Your task to perform on an android device: Show me the alarms in the clock app Image 0: 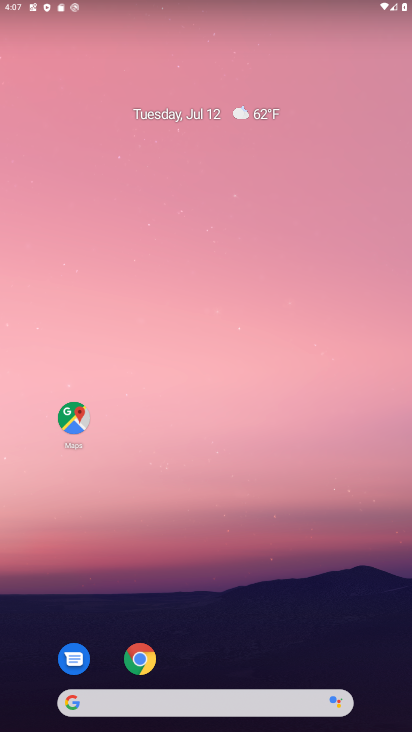
Step 0: drag from (223, 667) to (213, 126)
Your task to perform on an android device: Show me the alarms in the clock app Image 1: 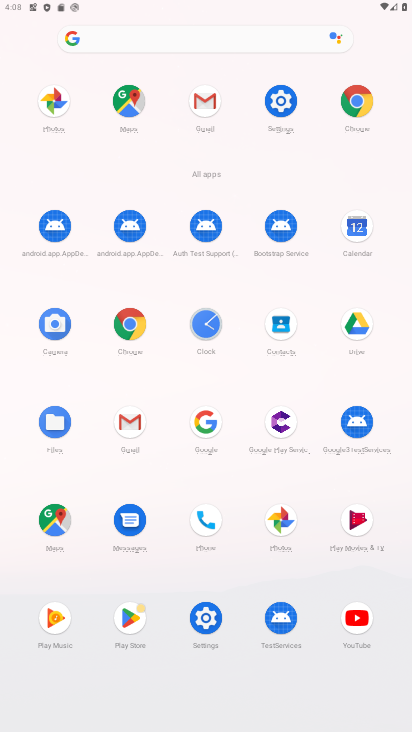
Step 1: click (202, 326)
Your task to perform on an android device: Show me the alarms in the clock app Image 2: 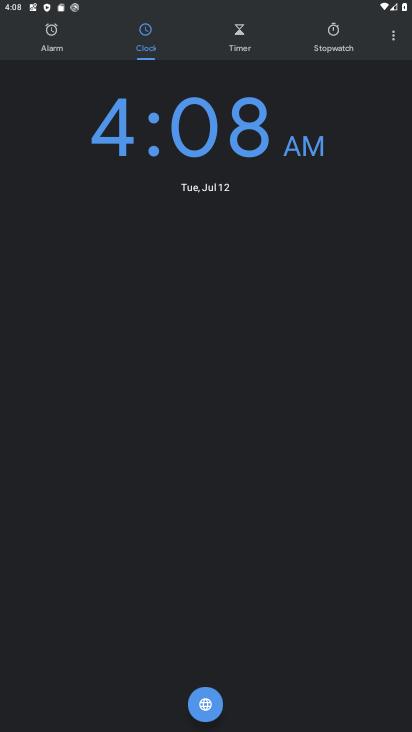
Step 2: click (386, 39)
Your task to perform on an android device: Show me the alarms in the clock app Image 3: 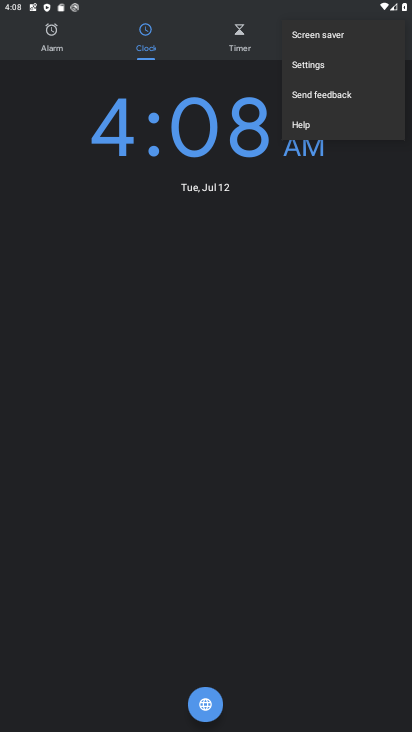
Step 3: click (319, 63)
Your task to perform on an android device: Show me the alarms in the clock app Image 4: 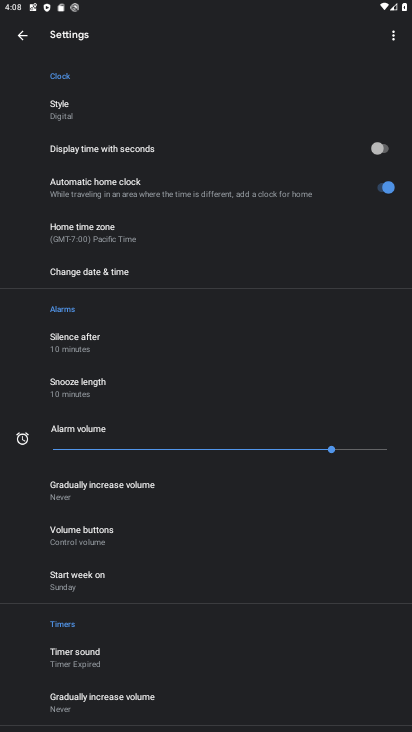
Step 4: click (23, 32)
Your task to perform on an android device: Show me the alarms in the clock app Image 5: 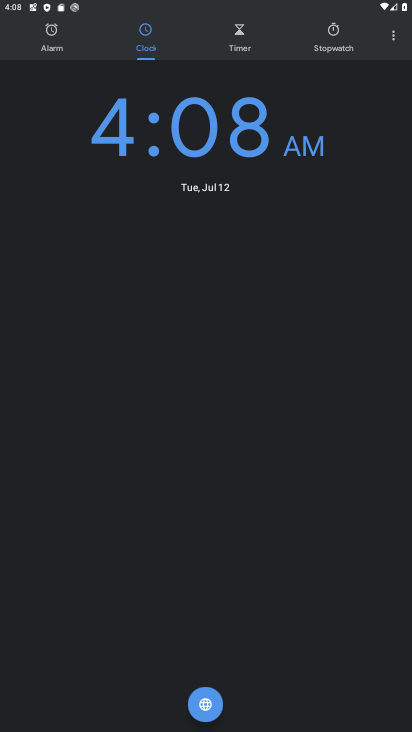
Step 5: click (42, 31)
Your task to perform on an android device: Show me the alarms in the clock app Image 6: 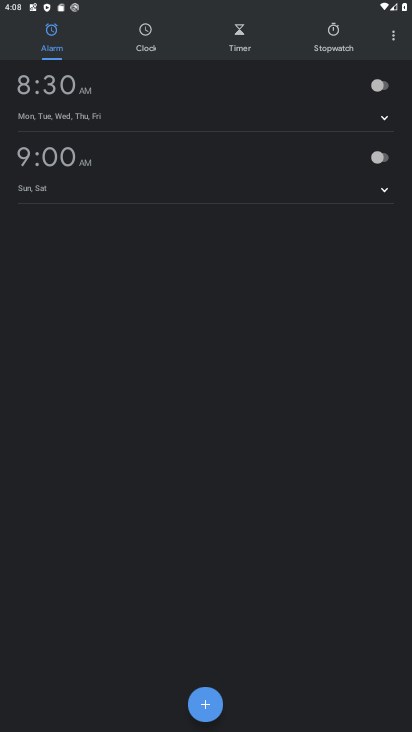
Step 6: task complete